Your task to perform on an android device: Open Chrome and go to settings Image 0: 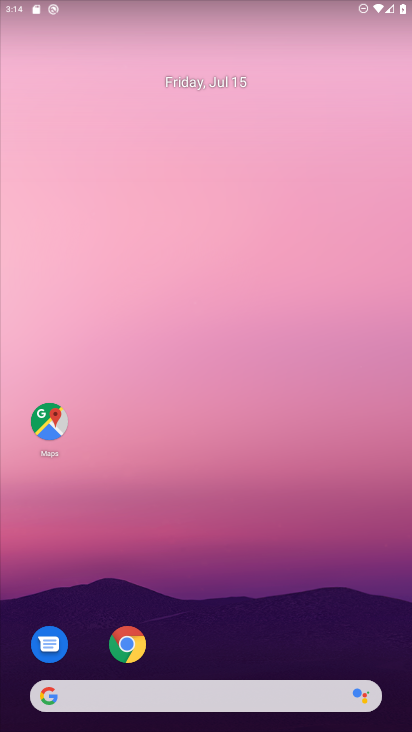
Step 0: click (123, 646)
Your task to perform on an android device: Open Chrome and go to settings Image 1: 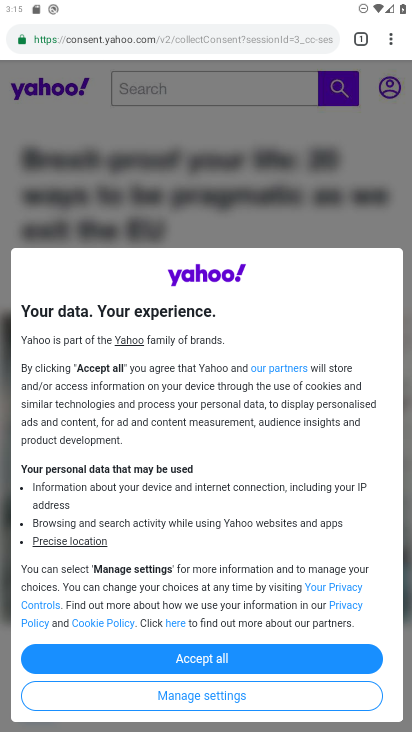
Step 1: click (384, 44)
Your task to perform on an android device: Open Chrome and go to settings Image 2: 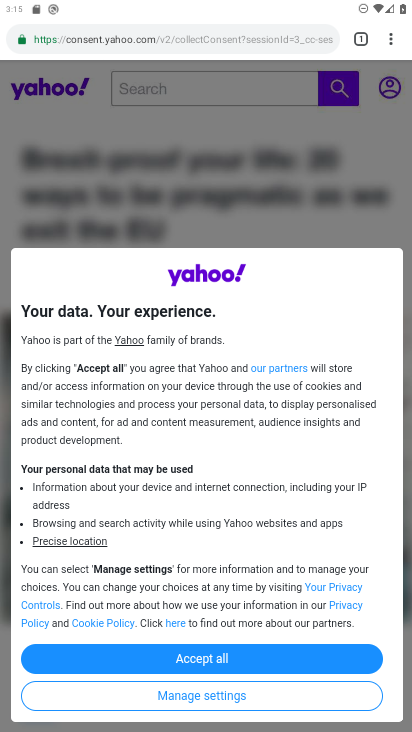
Step 2: click (394, 40)
Your task to perform on an android device: Open Chrome and go to settings Image 3: 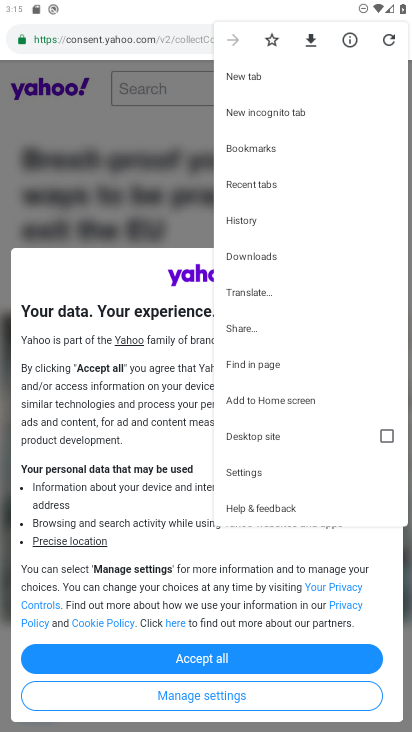
Step 3: click (245, 467)
Your task to perform on an android device: Open Chrome and go to settings Image 4: 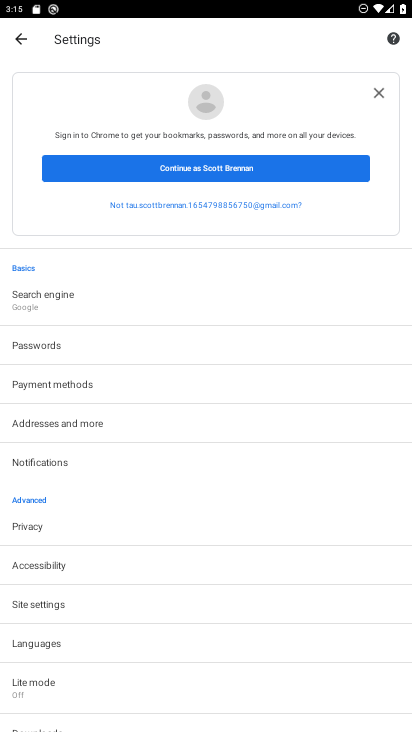
Step 4: task complete